Your task to perform on an android device: check data usage Image 0: 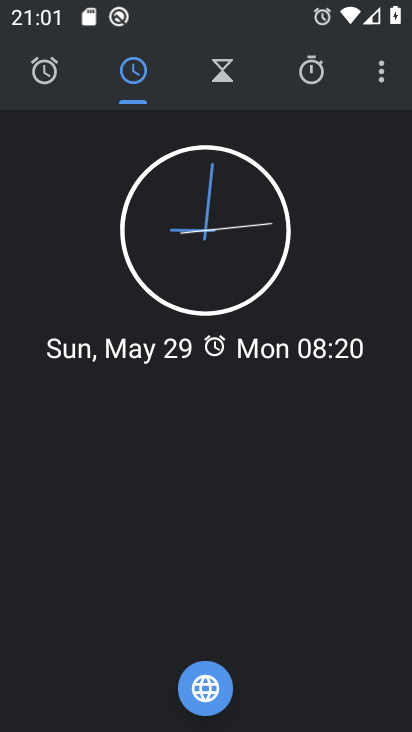
Step 0: press home button
Your task to perform on an android device: check data usage Image 1: 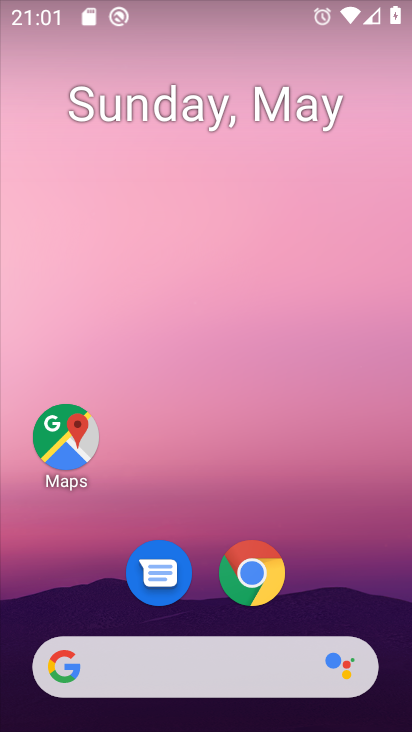
Step 1: drag from (207, 518) to (290, 0)
Your task to perform on an android device: check data usage Image 2: 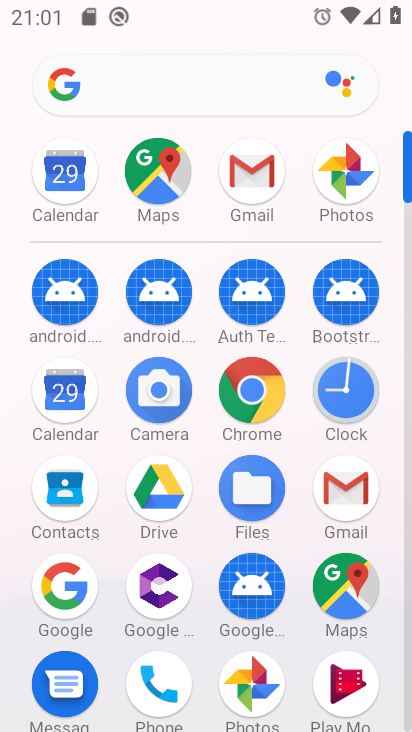
Step 2: drag from (203, 532) to (248, 118)
Your task to perform on an android device: check data usage Image 3: 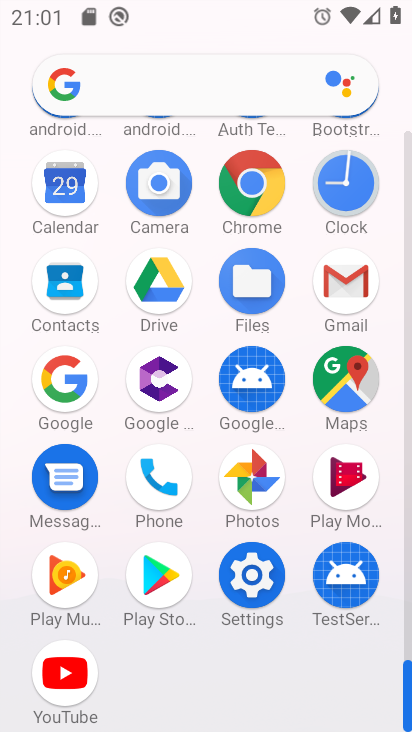
Step 3: click (261, 566)
Your task to perform on an android device: check data usage Image 4: 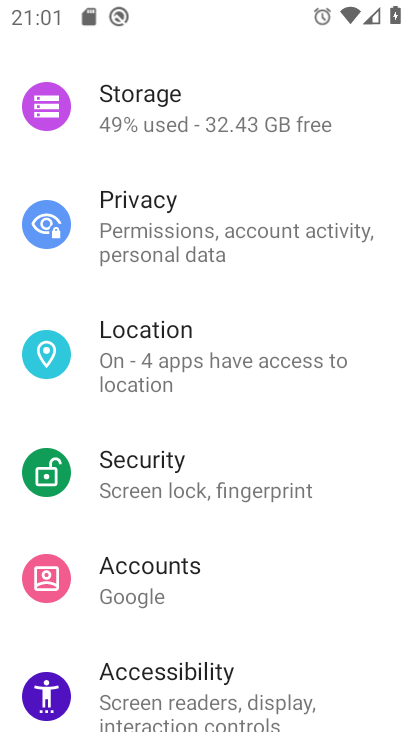
Step 4: drag from (231, 193) to (217, 681)
Your task to perform on an android device: check data usage Image 5: 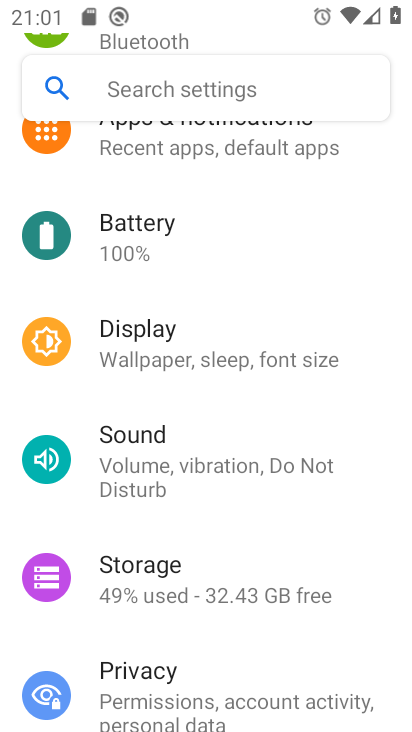
Step 5: drag from (237, 291) to (230, 569)
Your task to perform on an android device: check data usage Image 6: 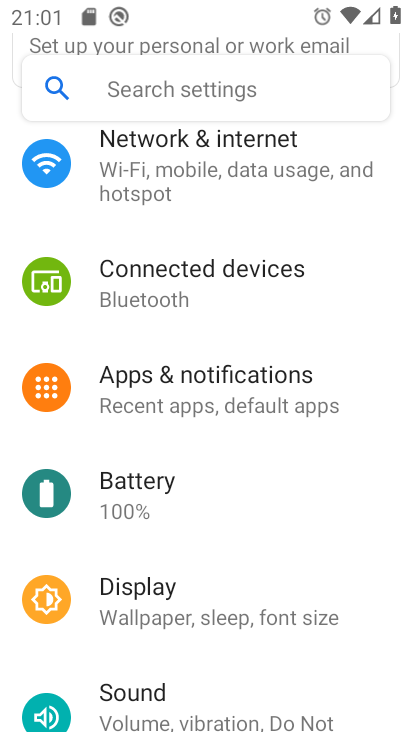
Step 6: click (249, 180)
Your task to perform on an android device: check data usage Image 7: 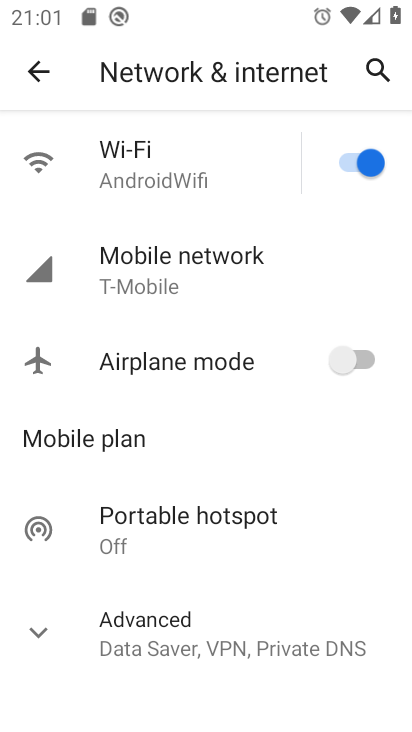
Step 7: click (228, 258)
Your task to perform on an android device: check data usage Image 8: 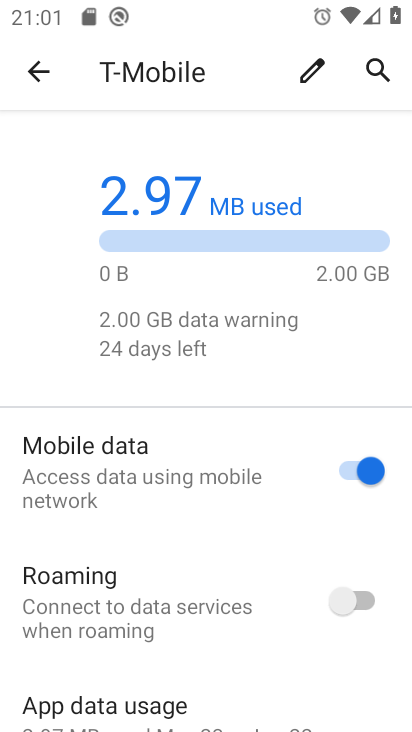
Step 8: task complete